Your task to perform on an android device: turn on javascript in the chrome app Image 0: 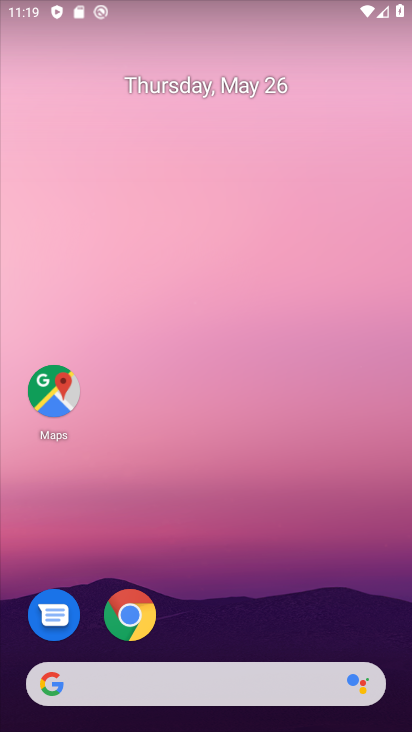
Step 0: press home button
Your task to perform on an android device: turn on javascript in the chrome app Image 1: 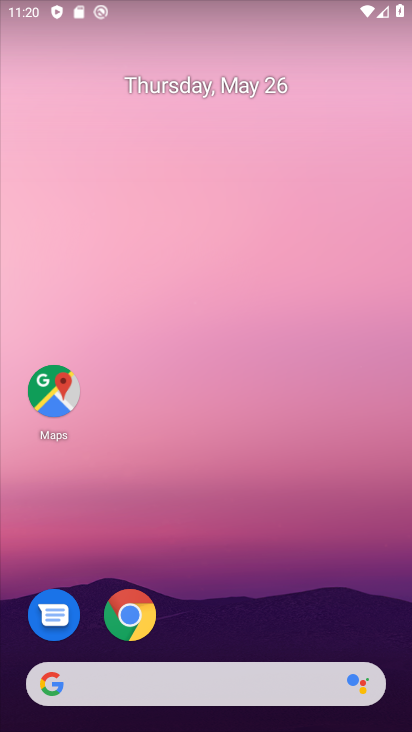
Step 1: click (126, 615)
Your task to perform on an android device: turn on javascript in the chrome app Image 2: 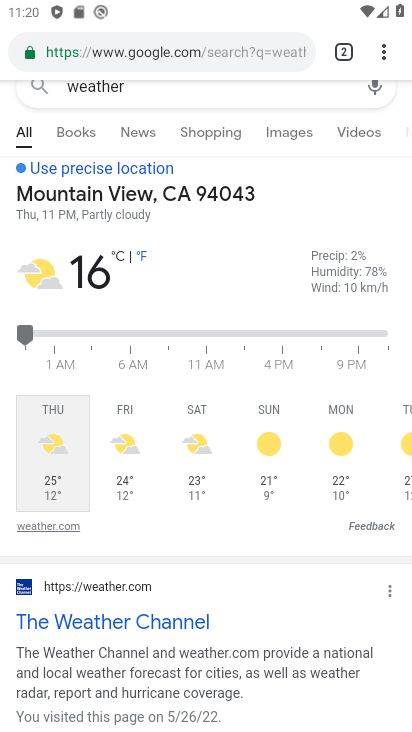
Step 2: drag from (382, 44) to (288, 586)
Your task to perform on an android device: turn on javascript in the chrome app Image 3: 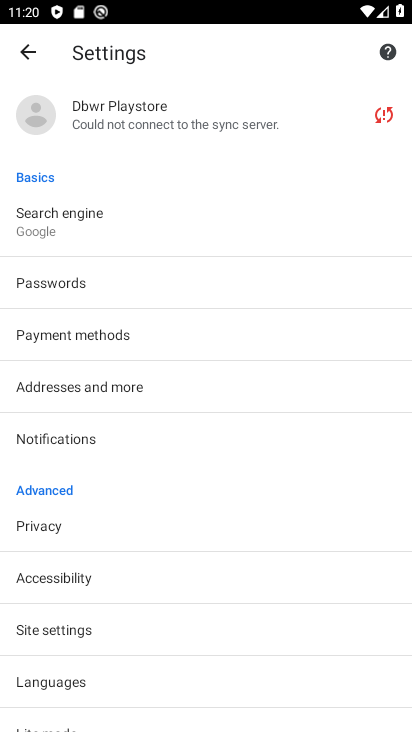
Step 3: click (17, 628)
Your task to perform on an android device: turn on javascript in the chrome app Image 4: 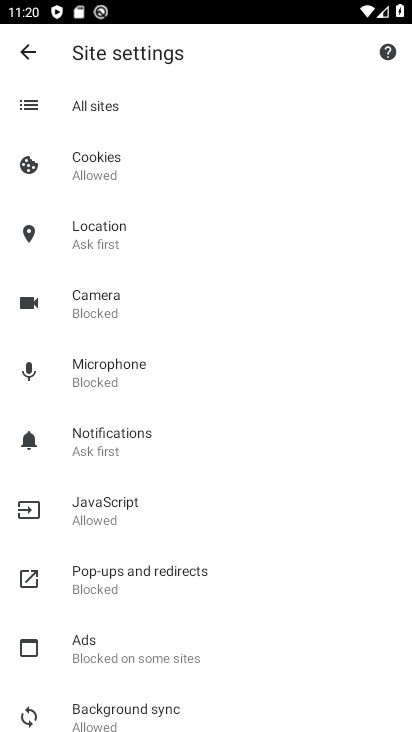
Step 4: click (104, 518)
Your task to perform on an android device: turn on javascript in the chrome app Image 5: 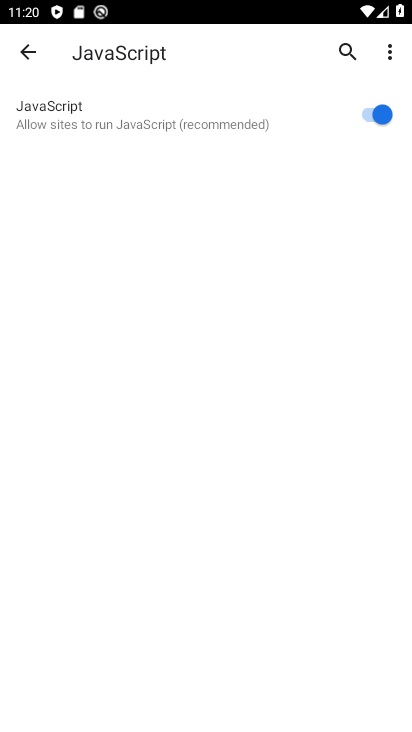
Step 5: task complete